Your task to perform on an android device: all mails in gmail Image 0: 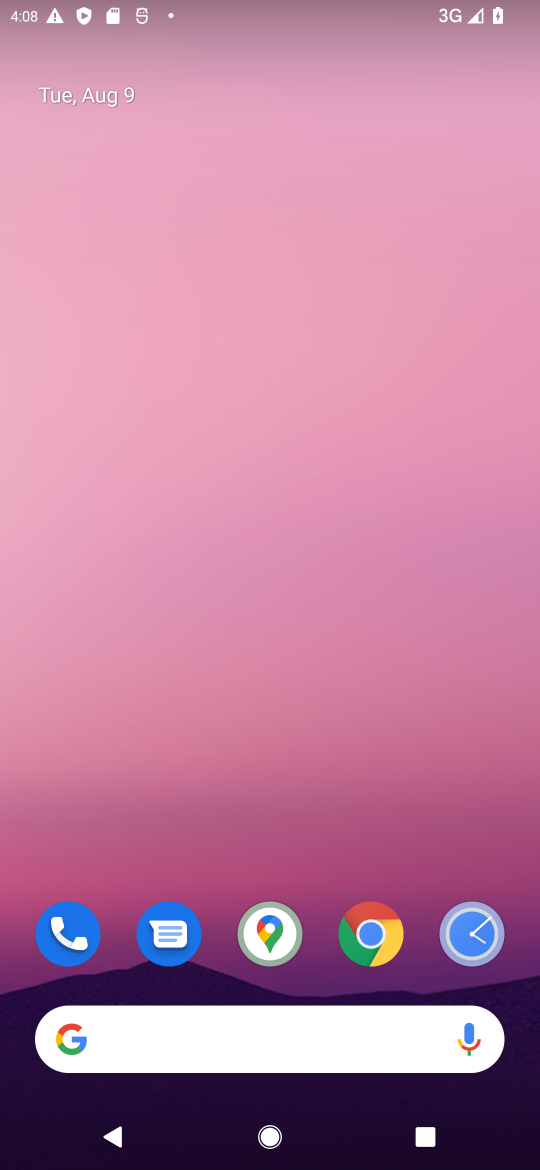
Step 0: drag from (310, 979) to (474, 159)
Your task to perform on an android device: all mails in gmail Image 1: 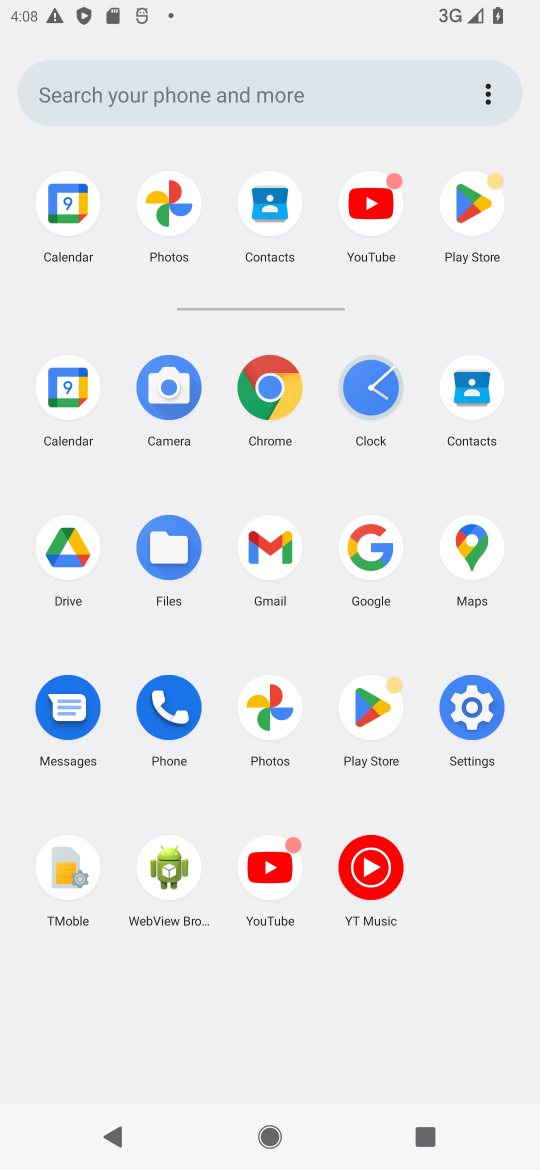
Step 1: click (257, 556)
Your task to perform on an android device: all mails in gmail Image 2: 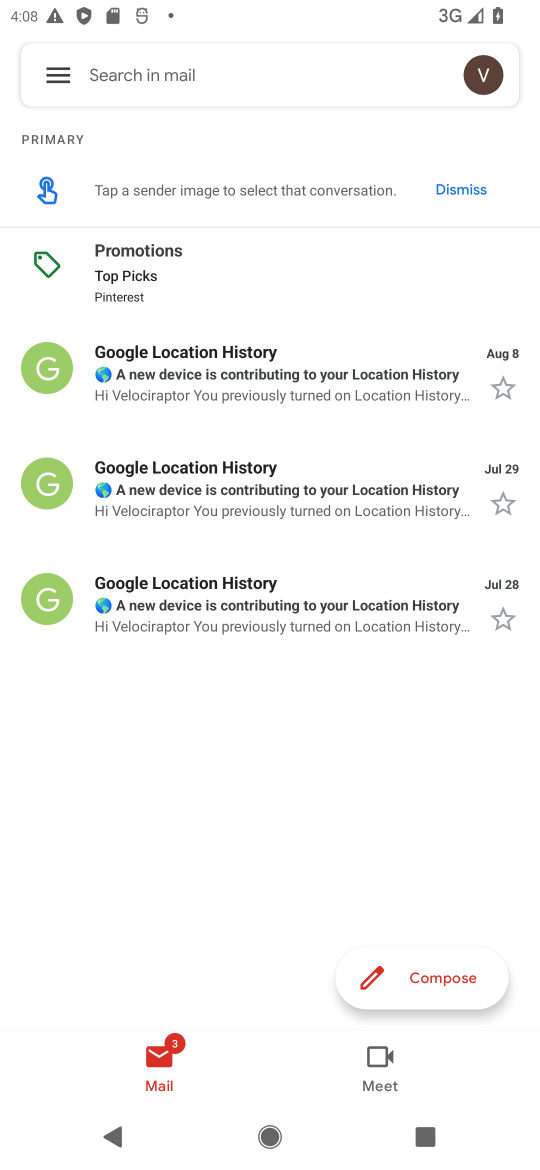
Step 2: task complete